Your task to perform on an android device: Open the calendar and show me this week's events Image 0: 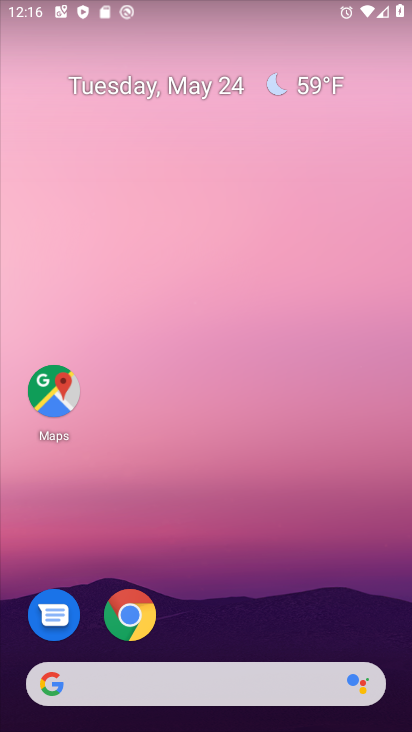
Step 0: drag from (249, 592) to (235, 24)
Your task to perform on an android device: Open the calendar and show me this week's events Image 1: 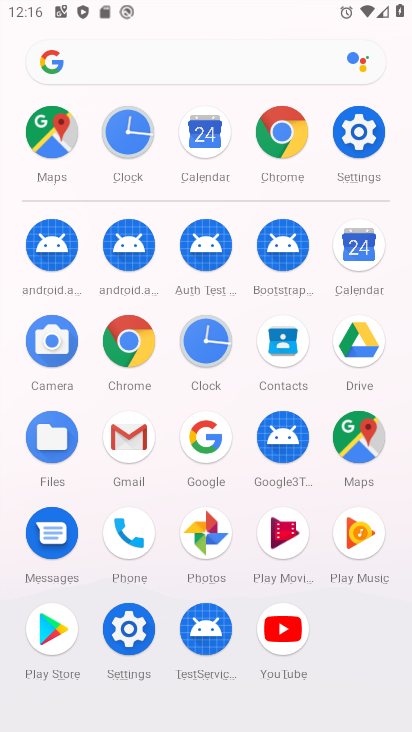
Step 1: drag from (8, 616) to (10, 214)
Your task to perform on an android device: Open the calendar and show me this week's events Image 2: 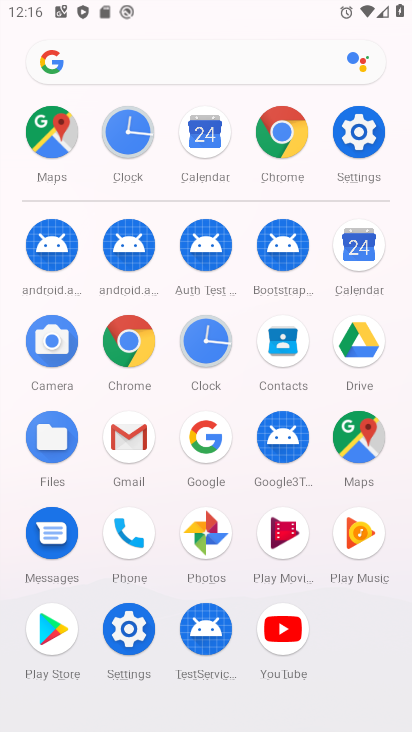
Step 2: click (351, 247)
Your task to perform on an android device: Open the calendar and show me this week's events Image 3: 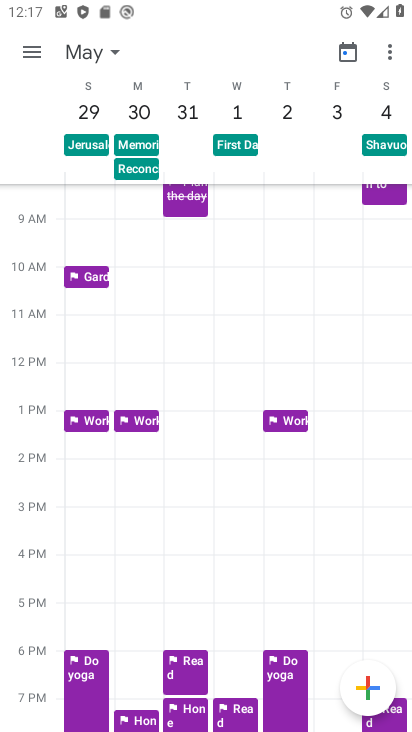
Step 3: click (335, 51)
Your task to perform on an android device: Open the calendar and show me this week's events Image 4: 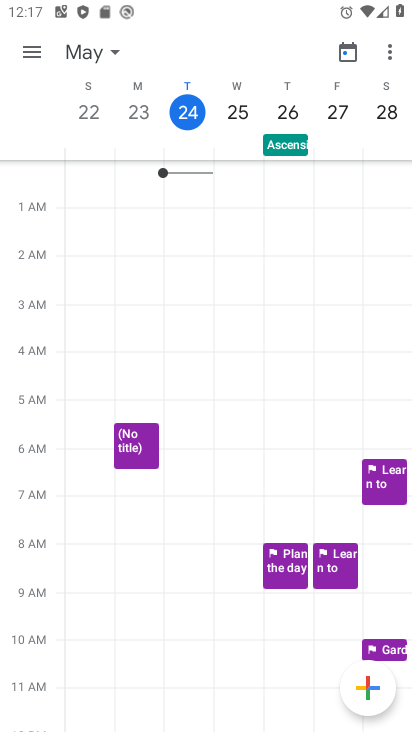
Step 4: task complete